Your task to perform on an android device: find which apps use the phone's location Image 0: 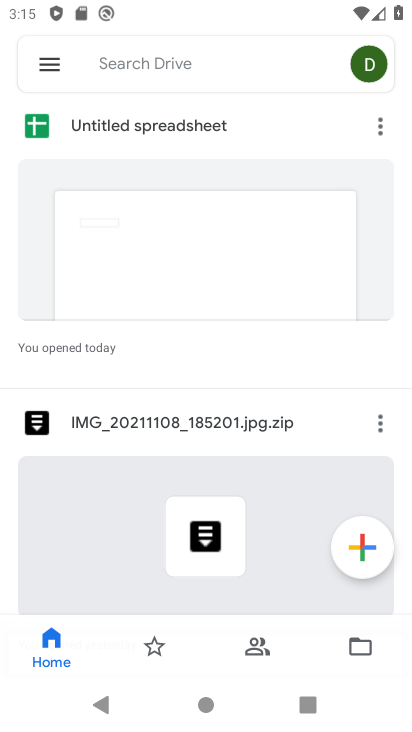
Step 0: press home button
Your task to perform on an android device: find which apps use the phone's location Image 1: 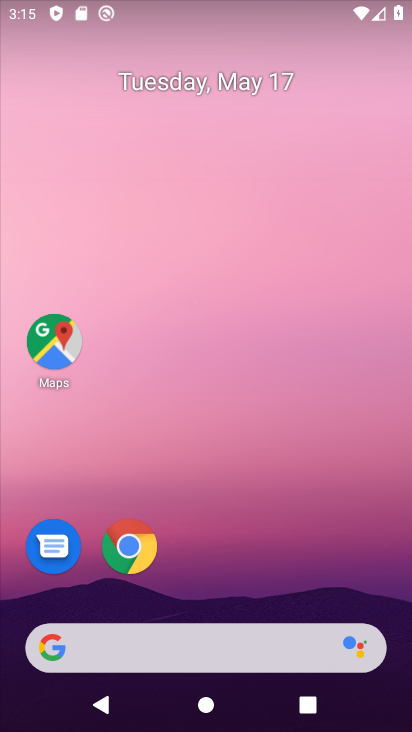
Step 1: drag from (189, 566) to (265, 169)
Your task to perform on an android device: find which apps use the phone's location Image 2: 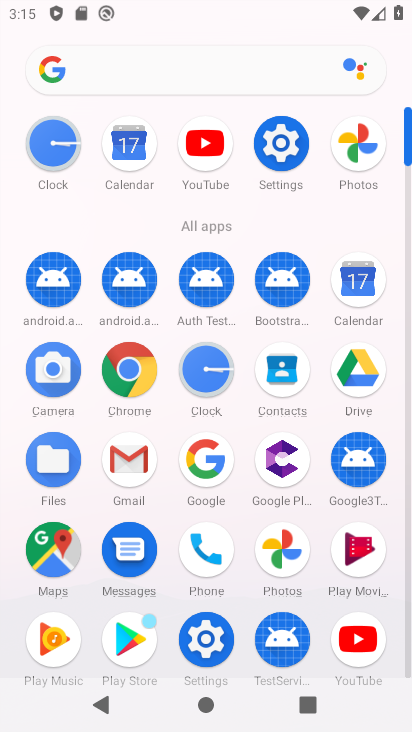
Step 2: click (205, 634)
Your task to perform on an android device: find which apps use the phone's location Image 3: 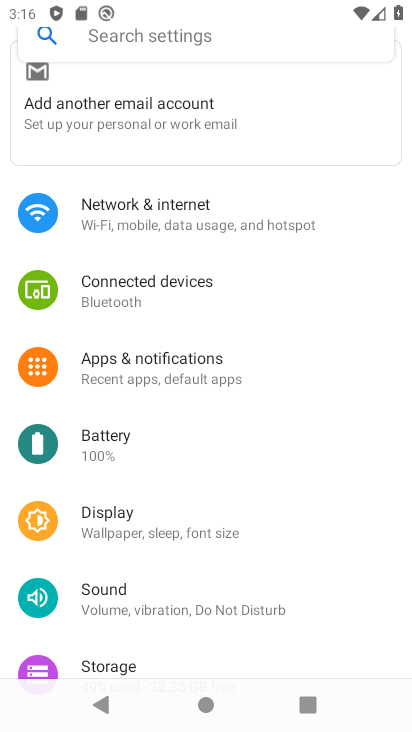
Step 3: drag from (127, 553) to (155, 235)
Your task to perform on an android device: find which apps use the phone's location Image 4: 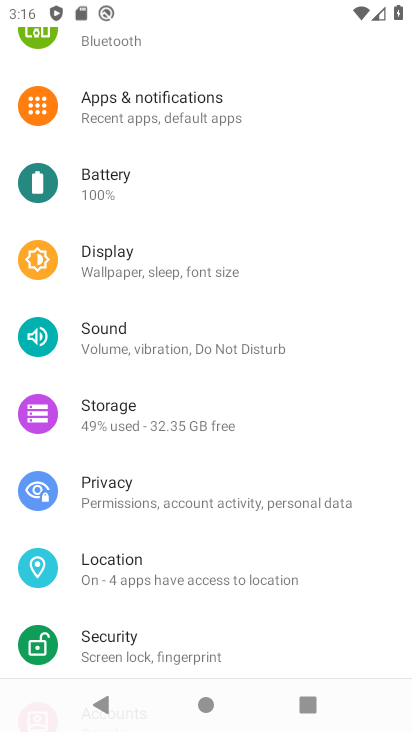
Step 4: drag from (177, 496) to (199, 137)
Your task to perform on an android device: find which apps use the phone's location Image 5: 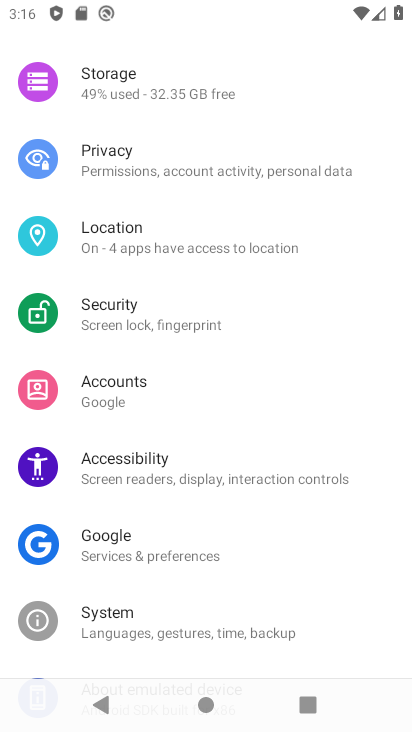
Step 5: drag from (184, 505) to (213, 186)
Your task to perform on an android device: find which apps use the phone's location Image 6: 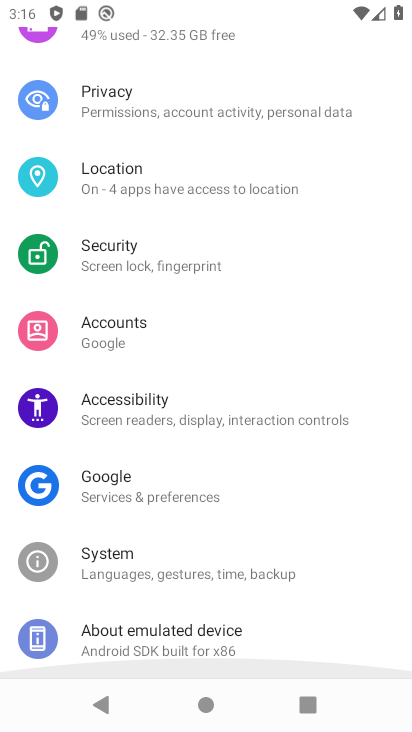
Step 6: drag from (209, 181) to (149, 624)
Your task to perform on an android device: find which apps use the phone's location Image 7: 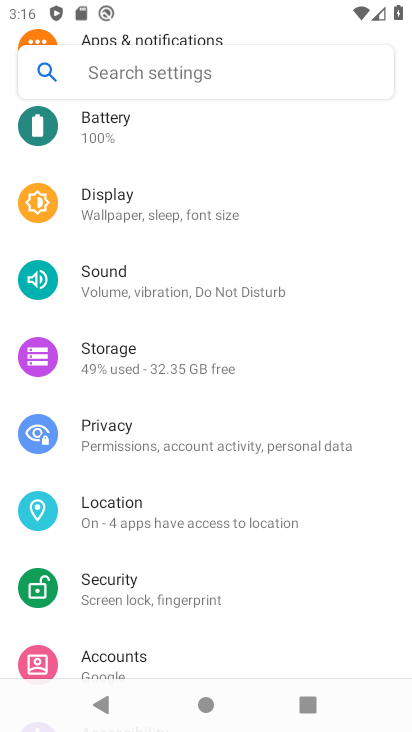
Step 7: drag from (229, 161) to (236, 547)
Your task to perform on an android device: find which apps use the phone's location Image 8: 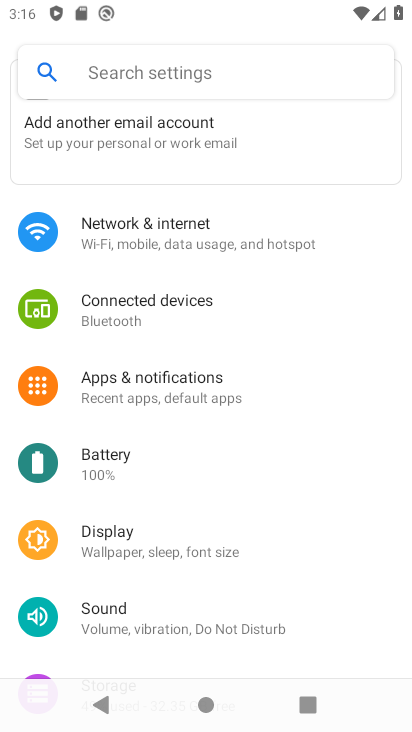
Step 8: drag from (174, 591) to (199, 317)
Your task to perform on an android device: find which apps use the phone's location Image 9: 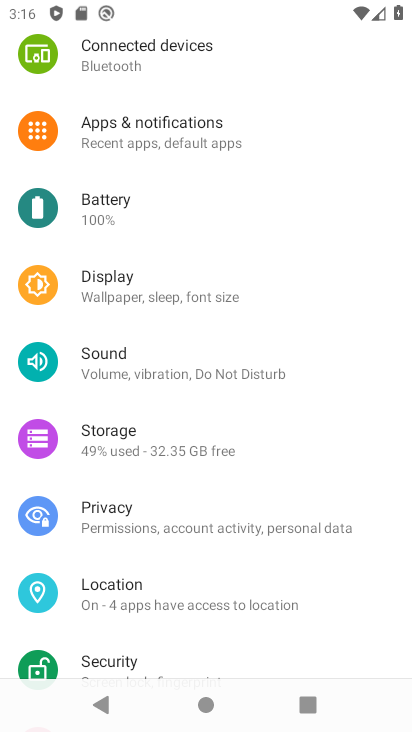
Step 9: click (142, 595)
Your task to perform on an android device: find which apps use the phone's location Image 10: 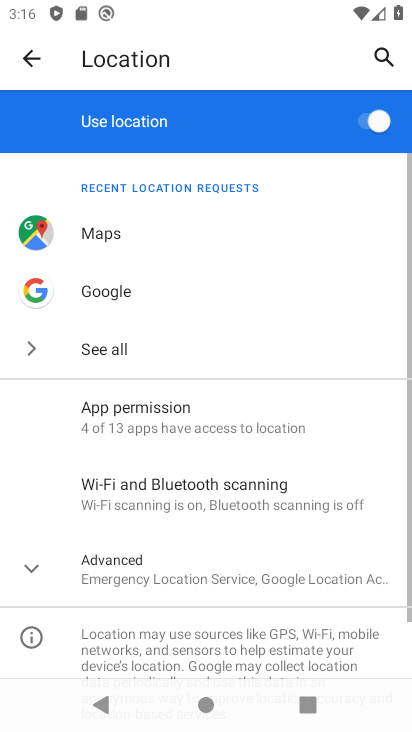
Step 10: click (126, 349)
Your task to perform on an android device: find which apps use the phone's location Image 11: 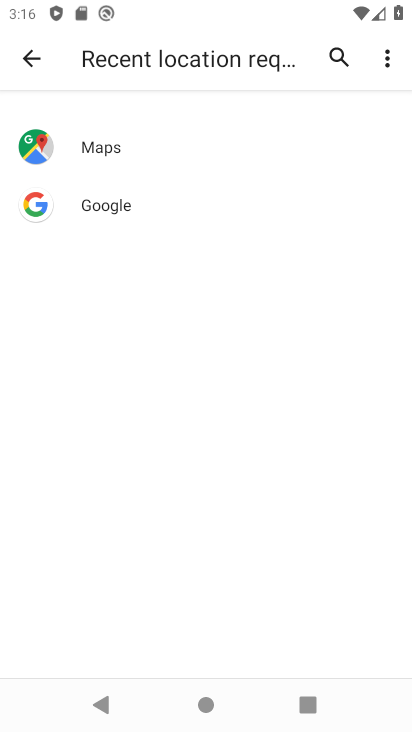
Step 11: task complete